Your task to perform on an android device: Open Google Chrome and click the shortcut for Amazon.com Image 0: 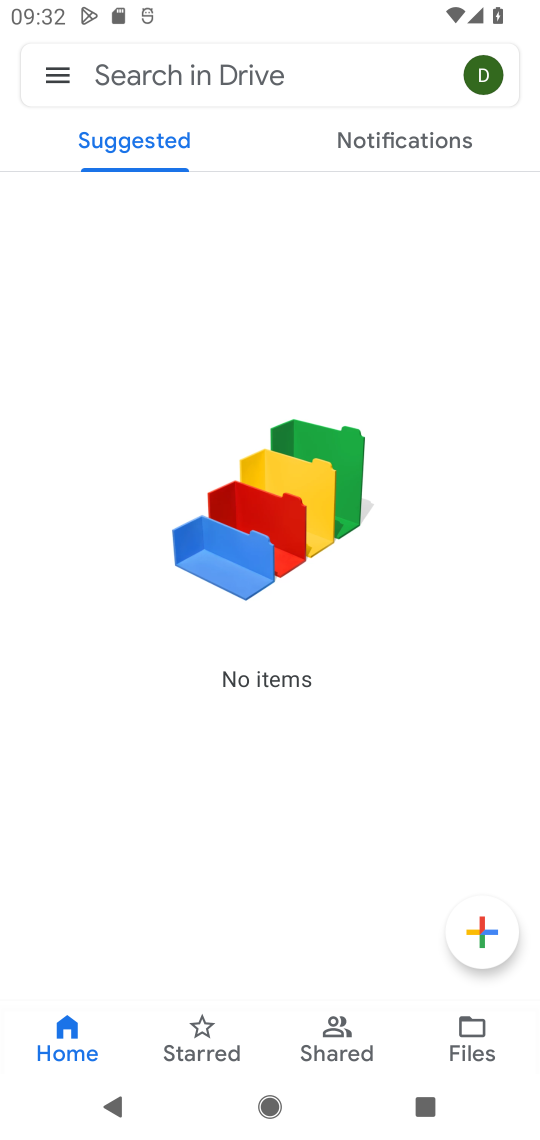
Step 0: press home button
Your task to perform on an android device: Open Google Chrome and click the shortcut for Amazon.com Image 1: 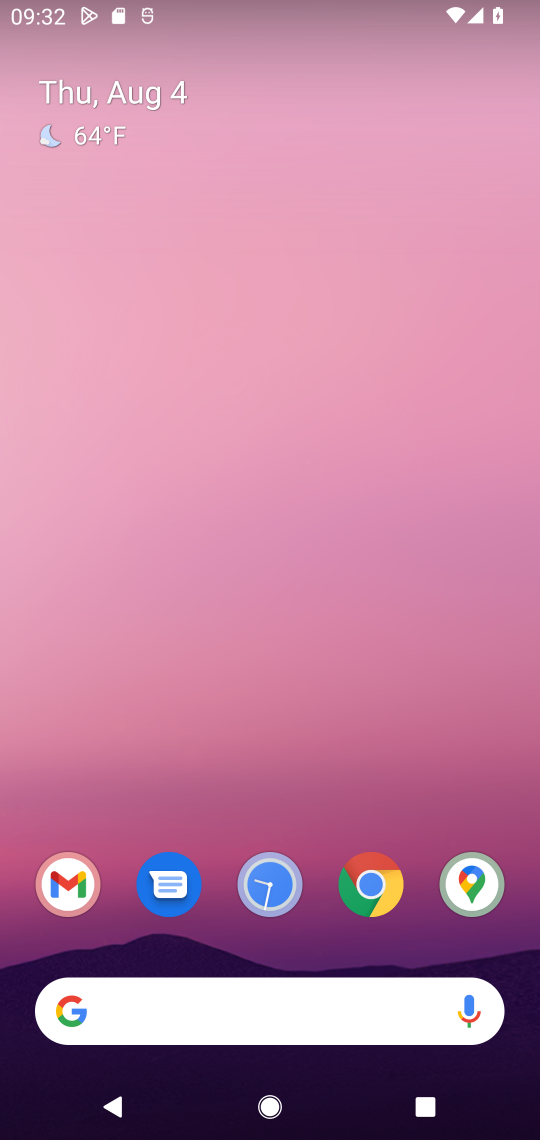
Step 1: click (365, 870)
Your task to perform on an android device: Open Google Chrome and click the shortcut for Amazon.com Image 2: 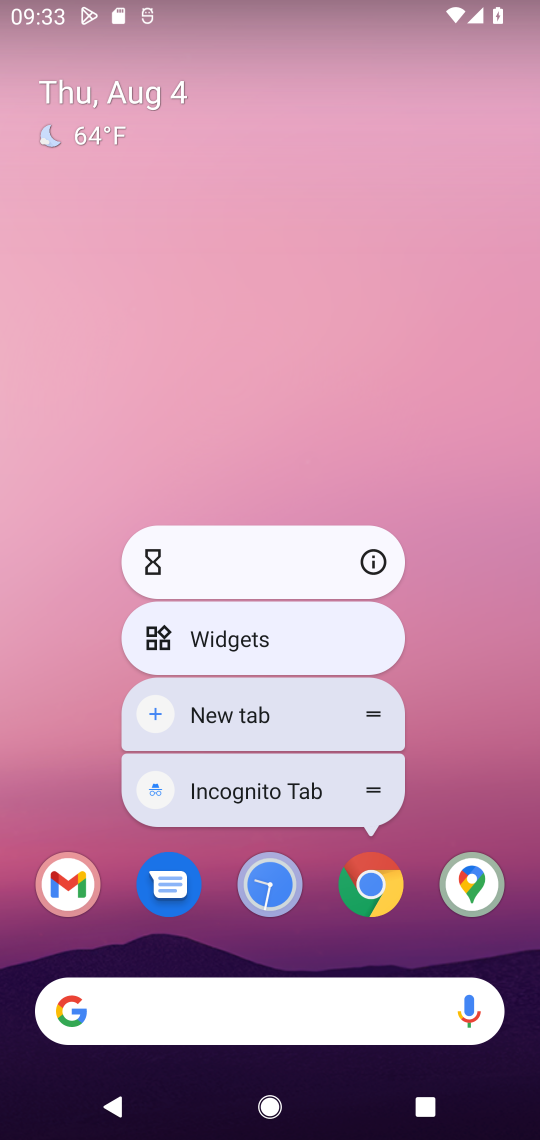
Step 2: click (365, 870)
Your task to perform on an android device: Open Google Chrome and click the shortcut for Amazon.com Image 3: 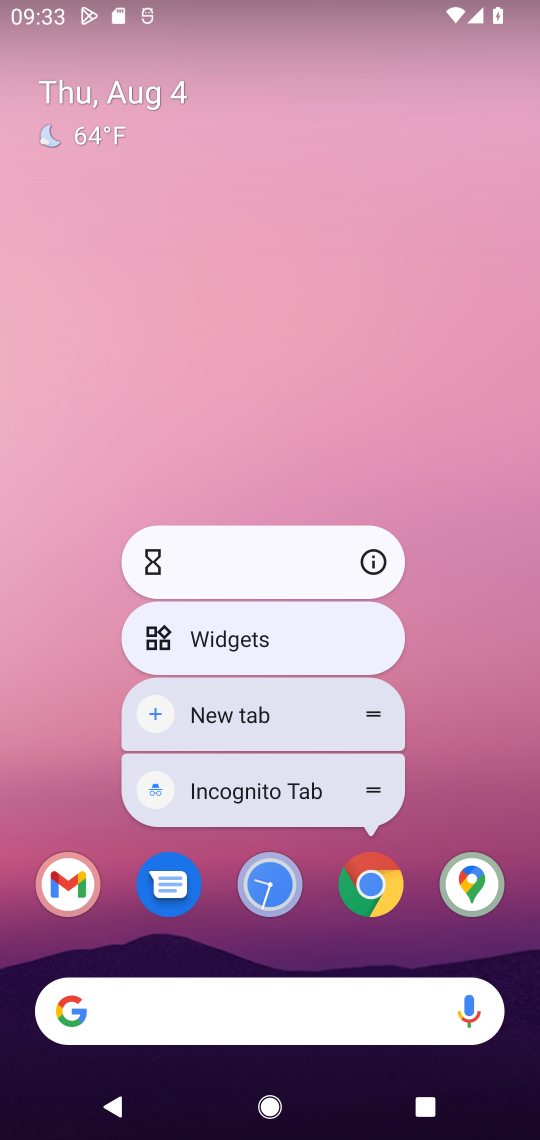
Step 3: click (365, 882)
Your task to perform on an android device: Open Google Chrome and click the shortcut for Amazon.com Image 4: 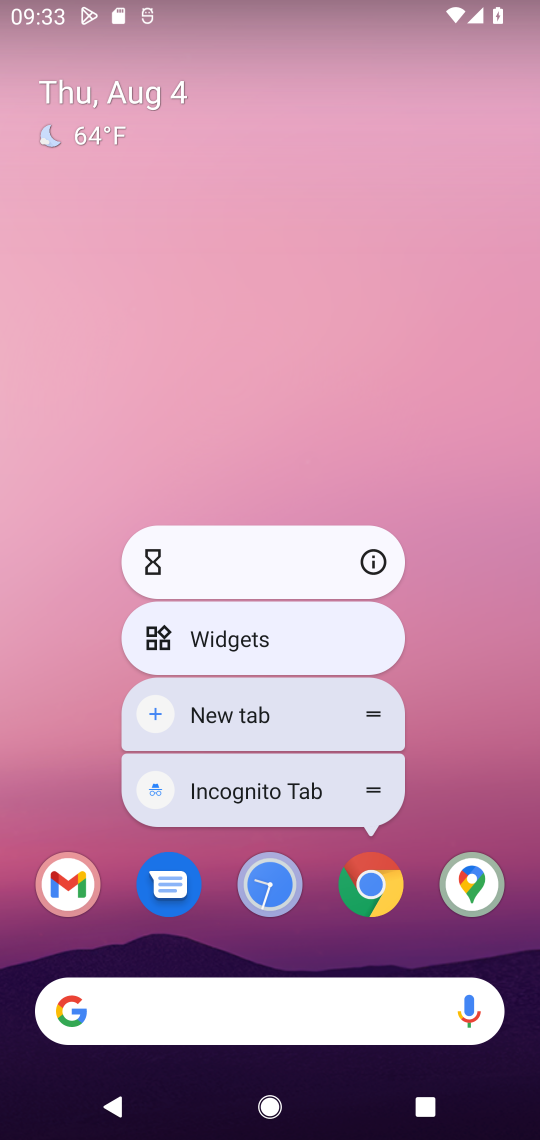
Step 4: click (365, 882)
Your task to perform on an android device: Open Google Chrome and click the shortcut for Amazon.com Image 5: 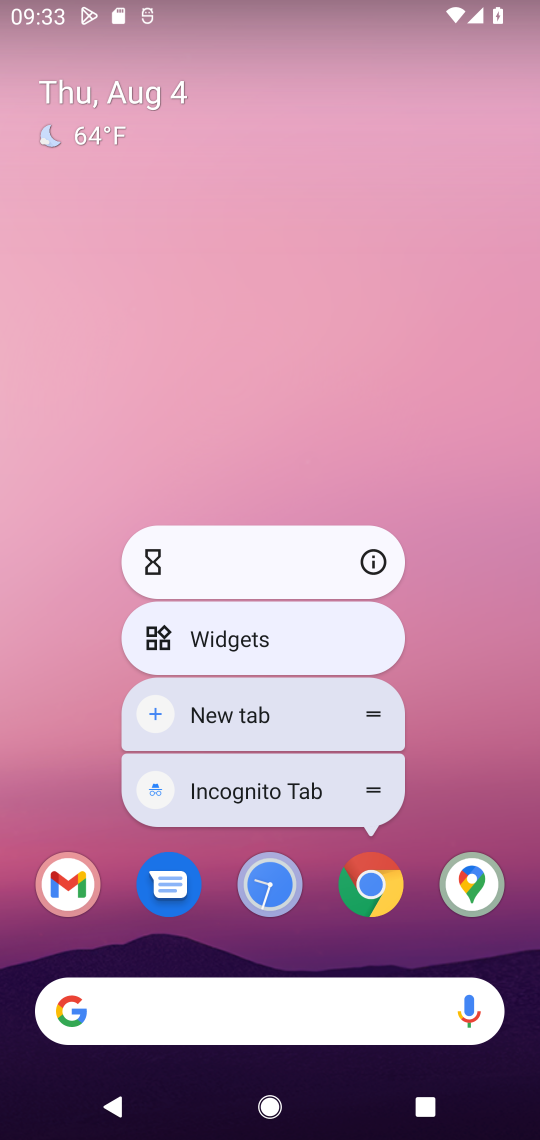
Step 5: click (365, 882)
Your task to perform on an android device: Open Google Chrome and click the shortcut for Amazon.com Image 6: 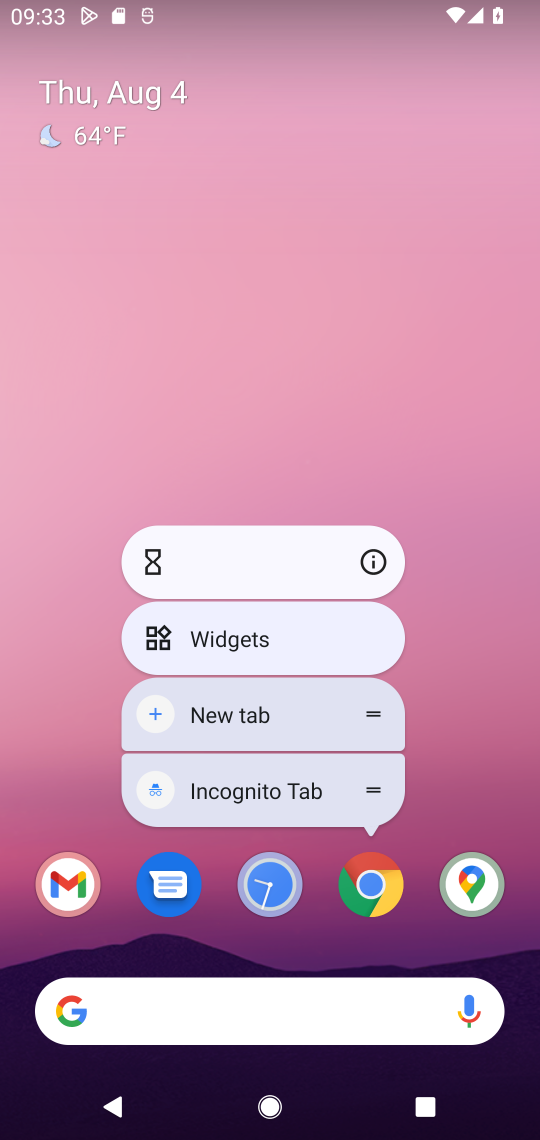
Step 6: click (365, 898)
Your task to perform on an android device: Open Google Chrome and click the shortcut for Amazon.com Image 7: 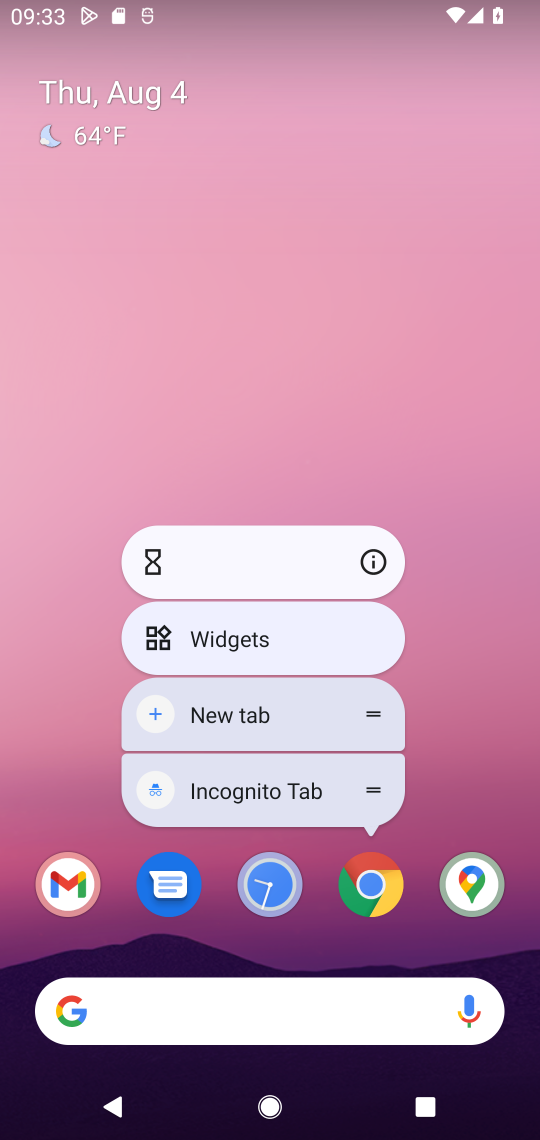
Step 7: click (370, 881)
Your task to perform on an android device: Open Google Chrome and click the shortcut for Amazon.com Image 8: 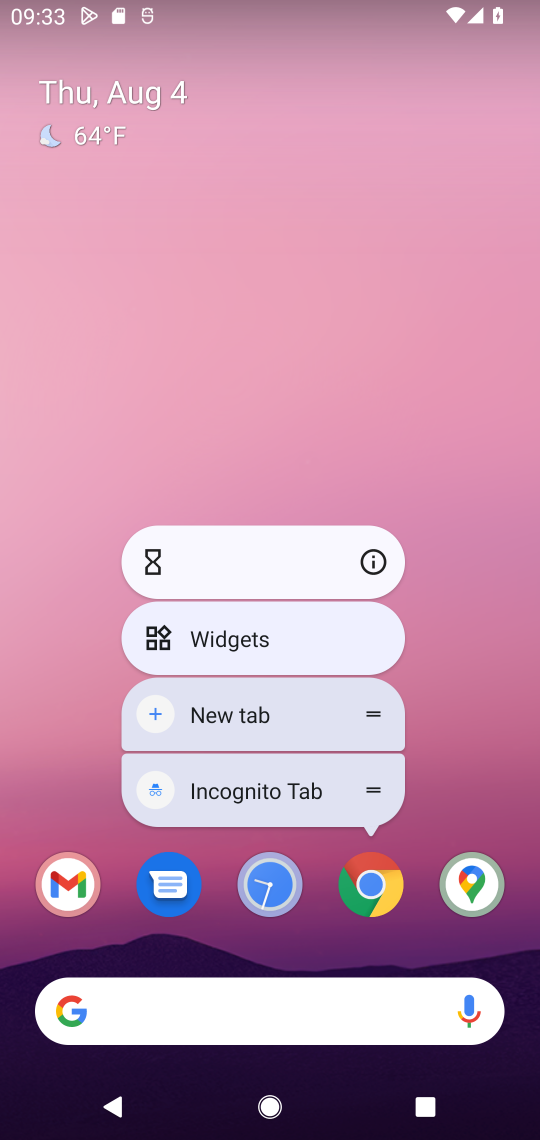
Step 8: click (361, 887)
Your task to perform on an android device: Open Google Chrome and click the shortcut for Amazon.com Image 9: 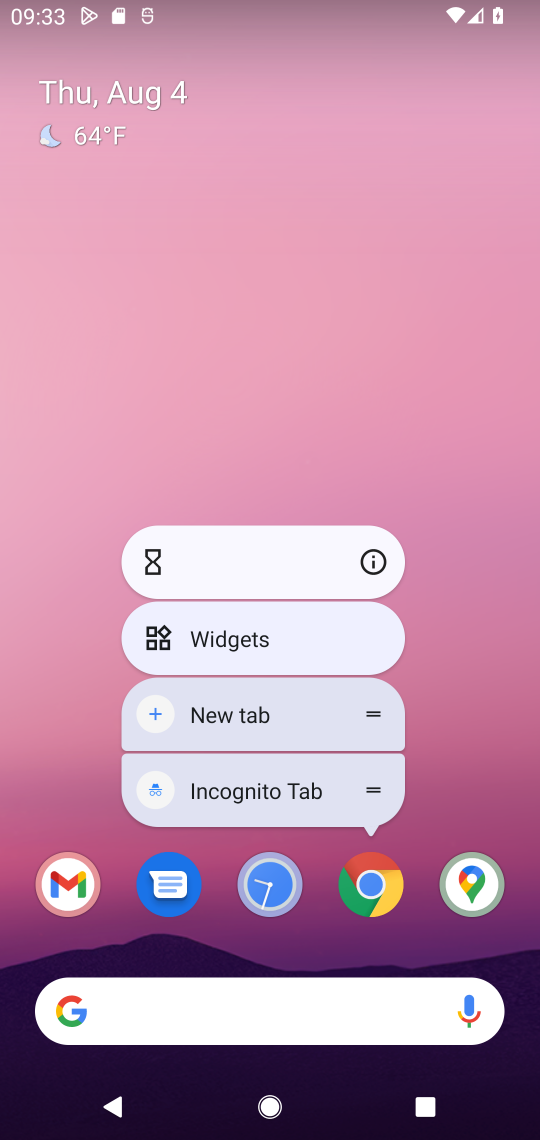
Step 9: click (361, 887)
Your task to perform on an android device: Open Google Chrome and click the shortcut for Amazon.com Image 10: 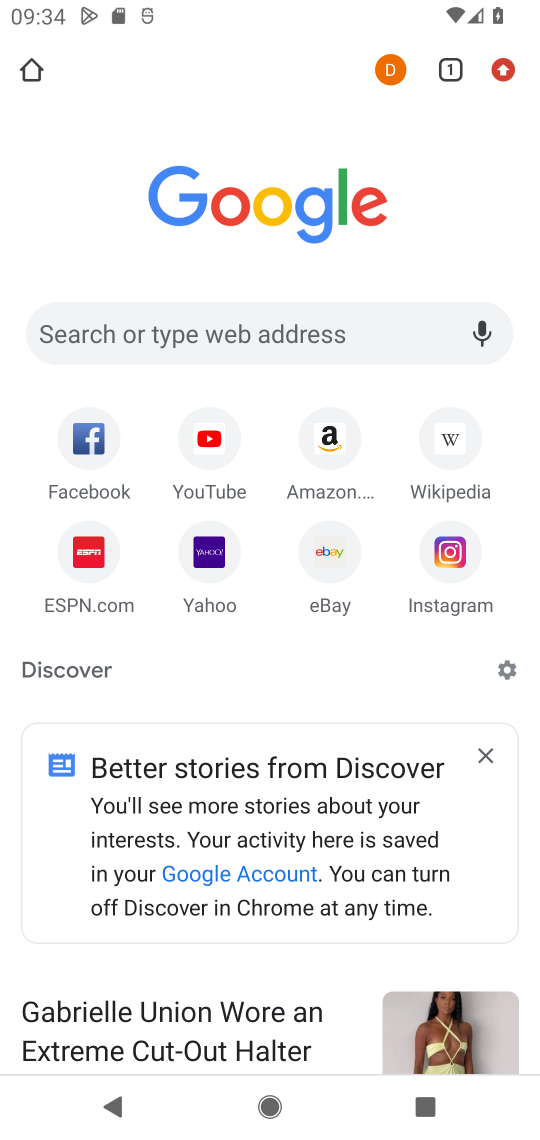
Step 10: click (336, 437)
Your task to perform on an android device: Open Google Chrome and click the shortcut for Amazon.com Image 11: 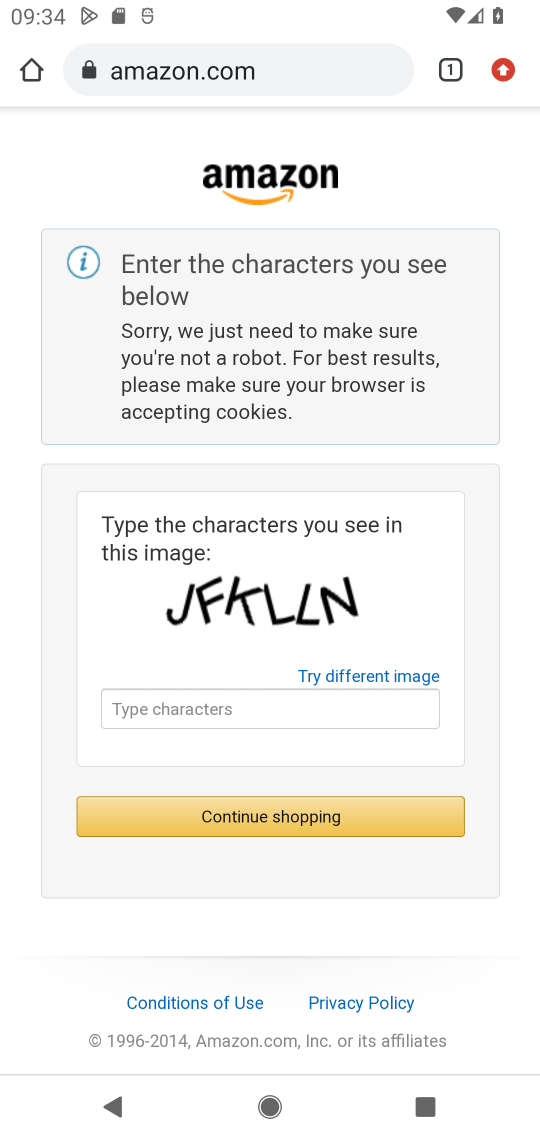
Step 11: task complete